Your task to perform on an android device: clear history in the chrome app Image 0: 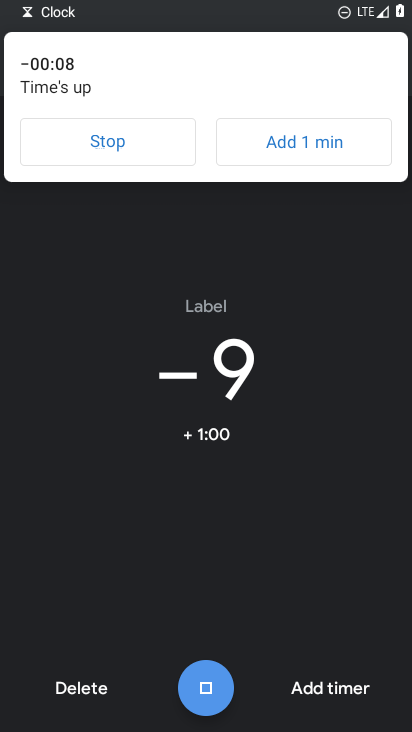
Step 0: click (125, 139)
Your task to perform on an android device: clear history in the chrome app Image 1: 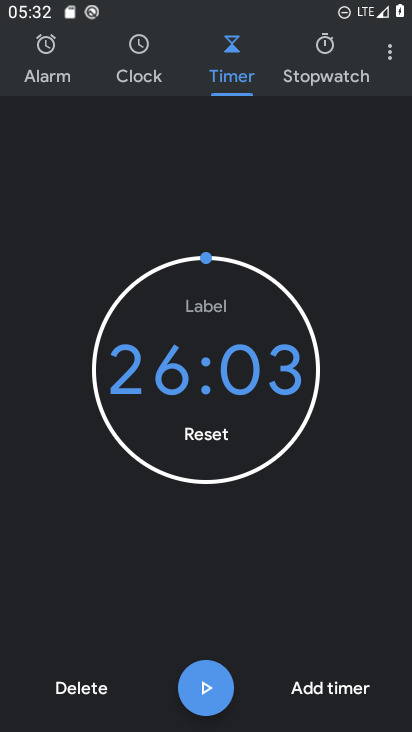
Step 1: press back button
Your task to perform on an android device: clear history in the chrome app Image 2: 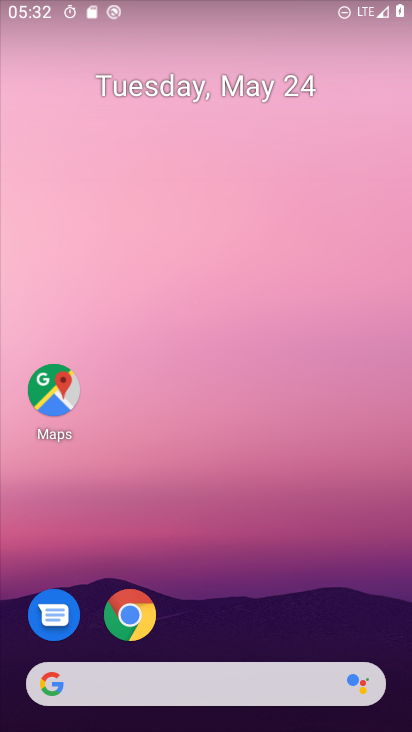
Step 2: click (137, 623)
Your task to perform on an android device: clear history in the chrome app Image 3: 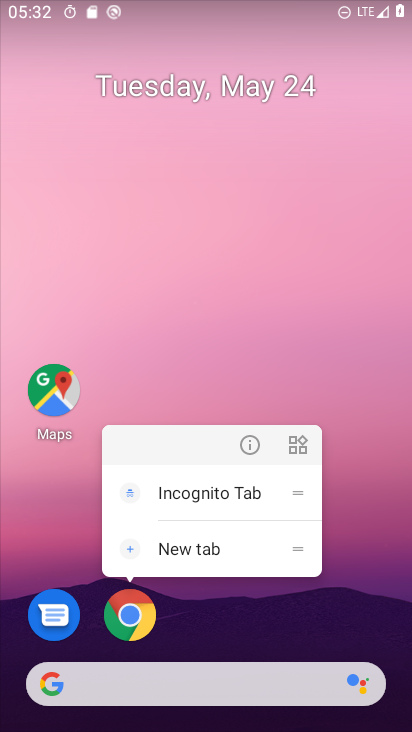
Step 3: click (119, 615)
Your task to perform on an android device: clear history in the chrome app Image 4: 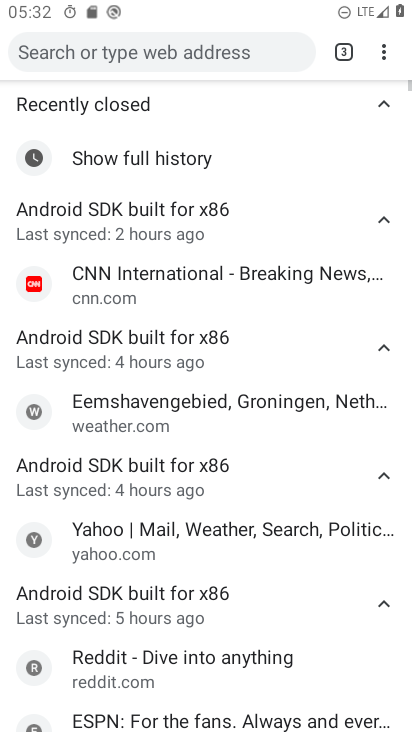
Step 4: drag from (383, 50) to (198, 288)
Your task to perform on an android device: clear history in the chrome app Image 5: 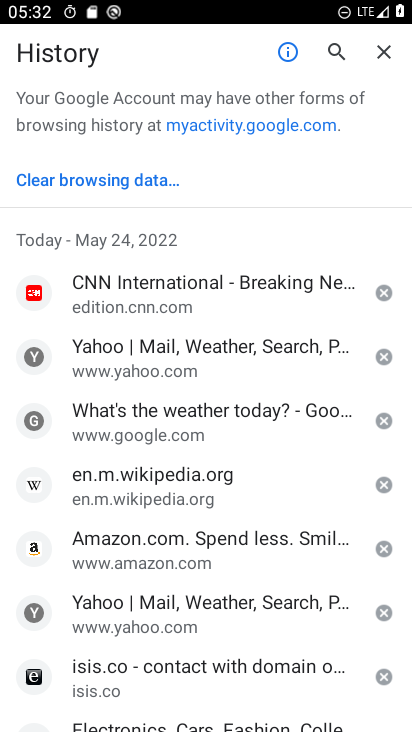
Step 5: click (153, 176)
Your task to perform on an android device: clear history in the chrome app Image 6: 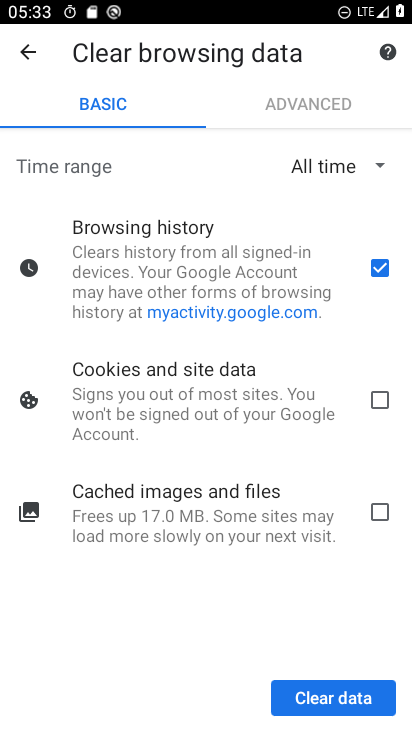
Step 6: click (380, 396)
Your task to perform on an android device: clear history in the chrome app Image 7: 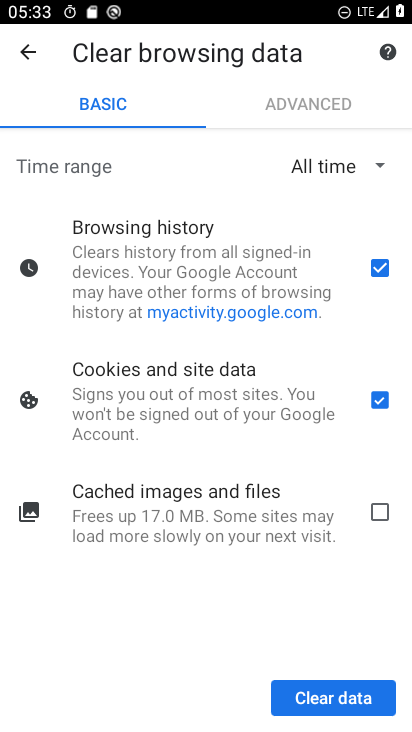
Step 7: click (374, 519)
Your task to perform on an android device: clear history in the chrome app Image 8: 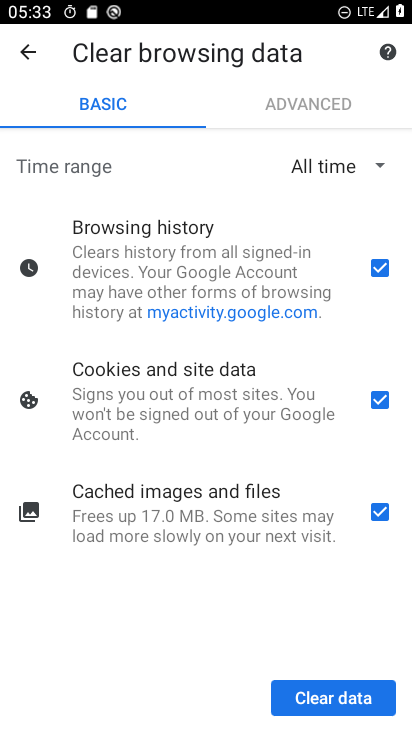
Step 8: click (306, 685)
Your task to perform on an android device: clear history in the chrome app Image 9: 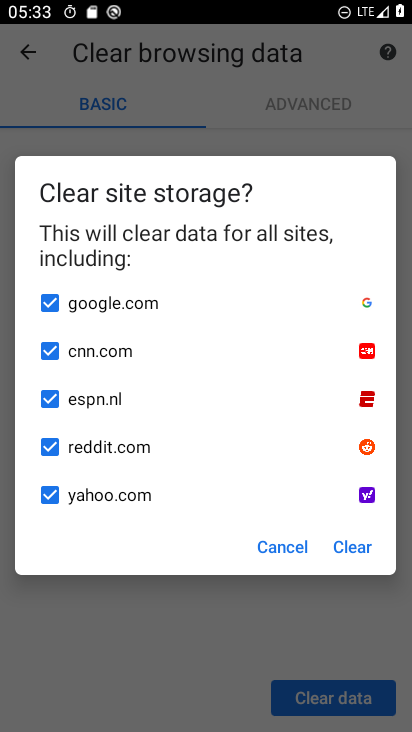
Step 9: click (356, 544)
Your task to perform on an android device: clear history in the chrome app Image 10: 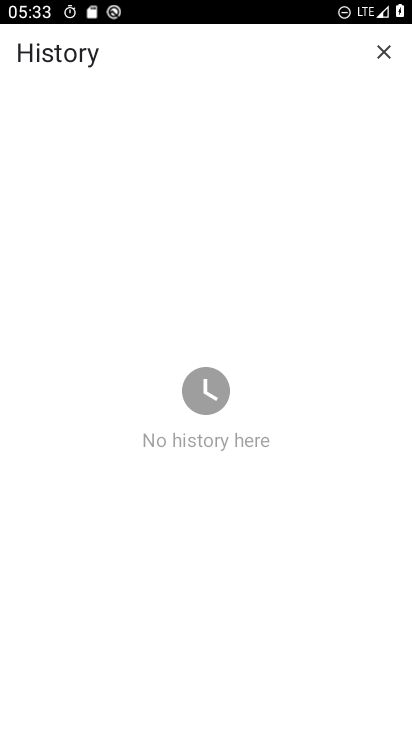
Step 10: task complete